Your task to perform on an android device: Open battery settings Image 0: 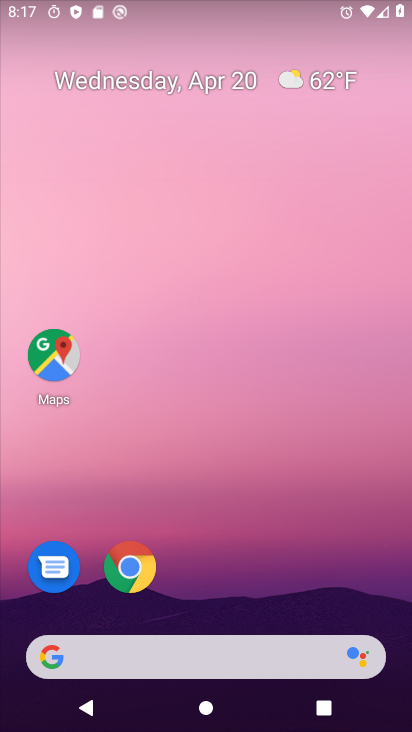
Step 0: drag from (383, 596) to (273, 9)
Your task to perform on an android device: Open battery settings Image 1: 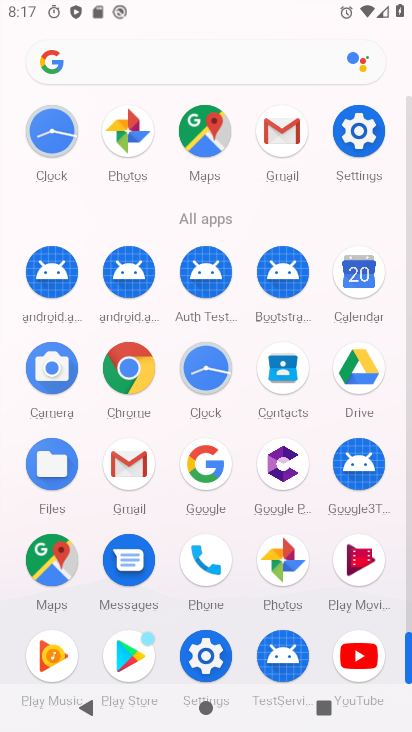
Step 1: click (349, 132)
Your task to perform on an android device: Open battery settings Image 2: 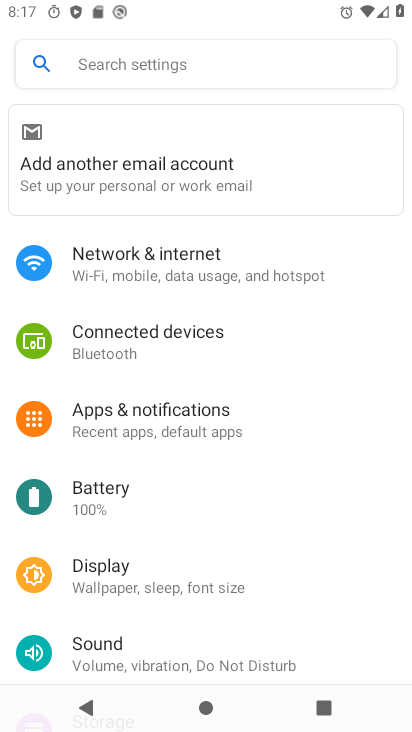
Step 2: click (69, 498)
Your task to perform on an android device: Open battery settings Image 3: 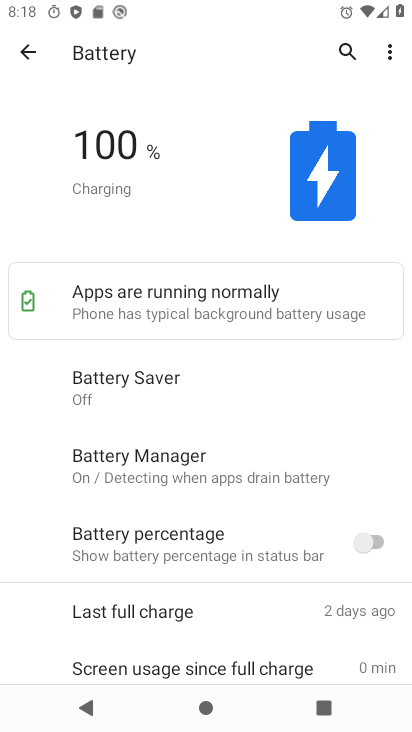
Step 3: task complete